Your task to perform on an android device: move a message to another label in the gmail app Image 0: 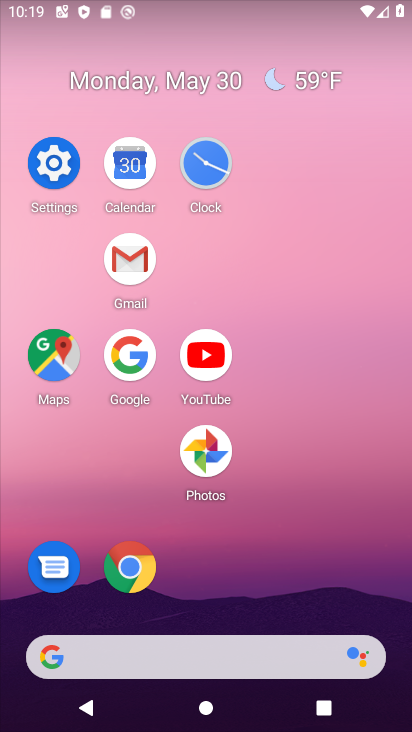
Step 0: click (120, 268)
Your task to perform on an android device: move a message to another label in the gmail app Image 1: 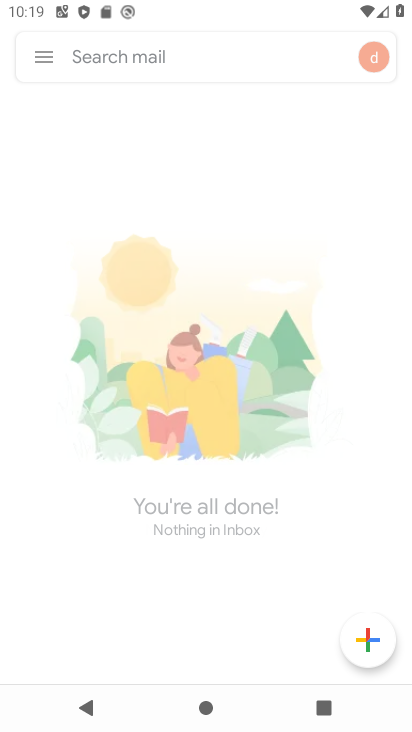
Step 1: click (40, 83)
Your task to perform on an android device: move a message to another label in the gmail app Image 2: 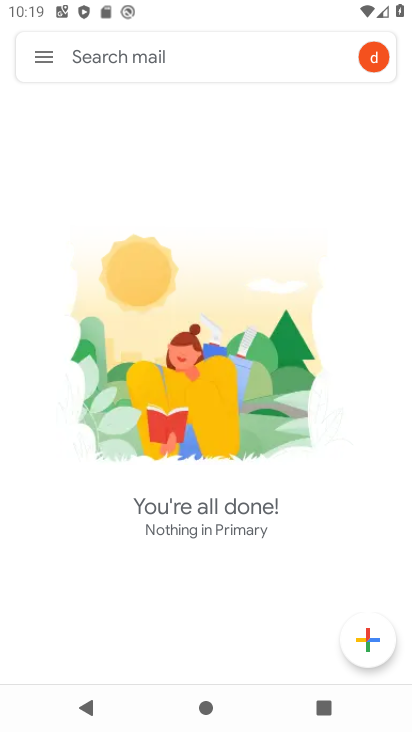
Step 2: click (31, 64)
Your task to perform on an android device: move a message to another label in the gmail app Image 3: 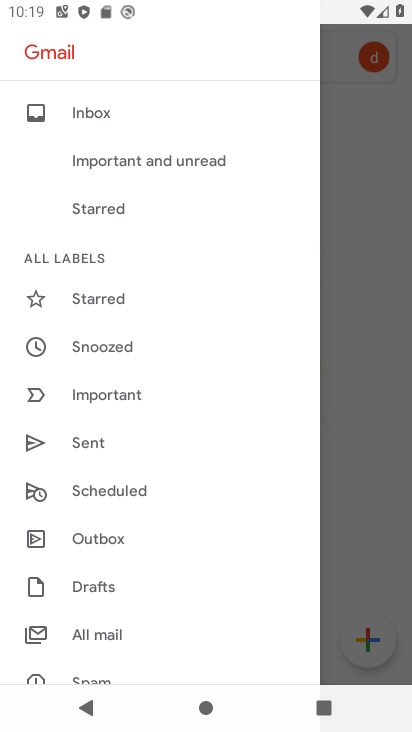
Step 3: click (158, 627)
Your task to perform on an android device: move a message to another label in the gmail app Image 4: 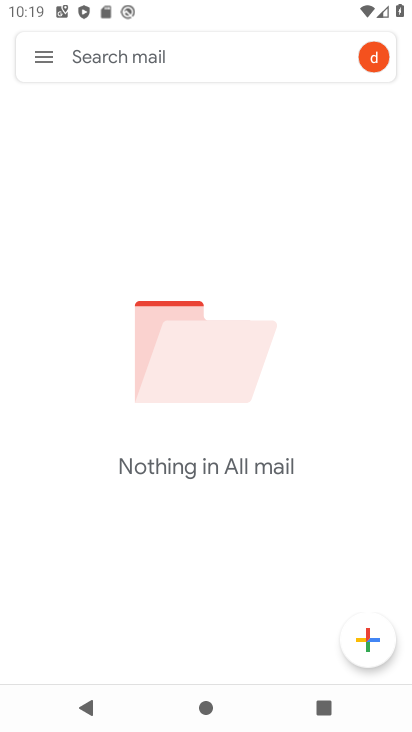
Step 4: task complete